Your task to perform on an android device: add a label to a message in the gmail app Image 0: 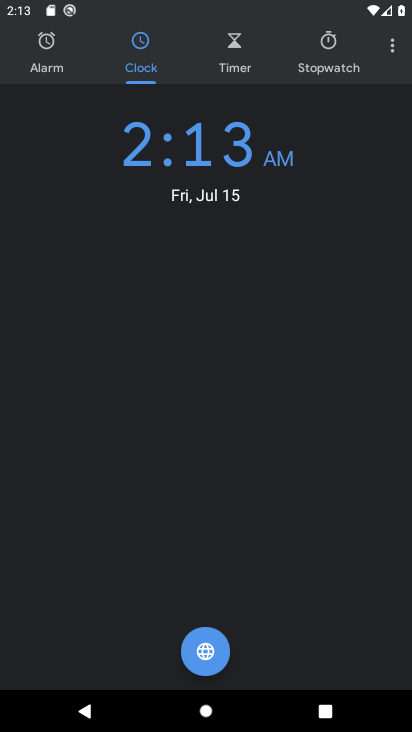
Step 0: press home button
Your task to perform on an android device: add a label to a message in the gmail app Image 1: 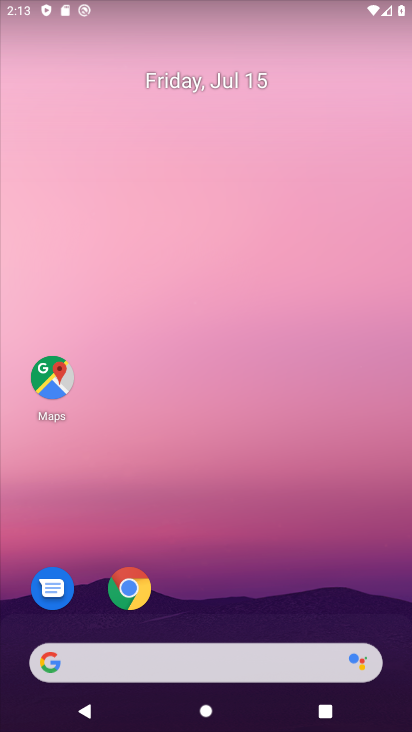
Step 1: drag from (267, 530) to (222, 116)
Your task to perform on an android device: add a label to a message in the gmail app Image 2: 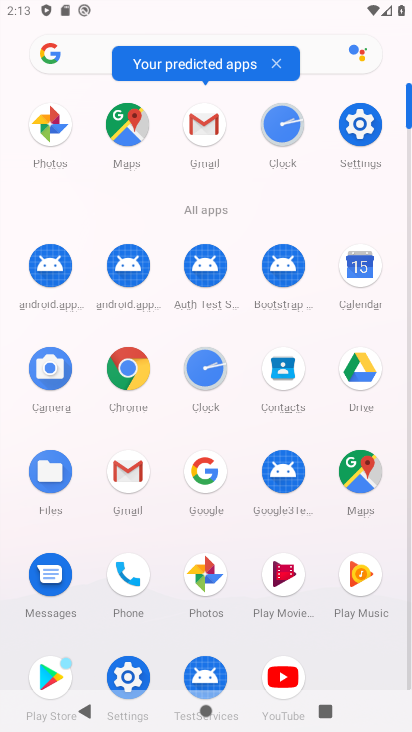
Step 2: click (124, 474)
Your task to perform on an android device: add a label to a message in the gmail app Image 3: 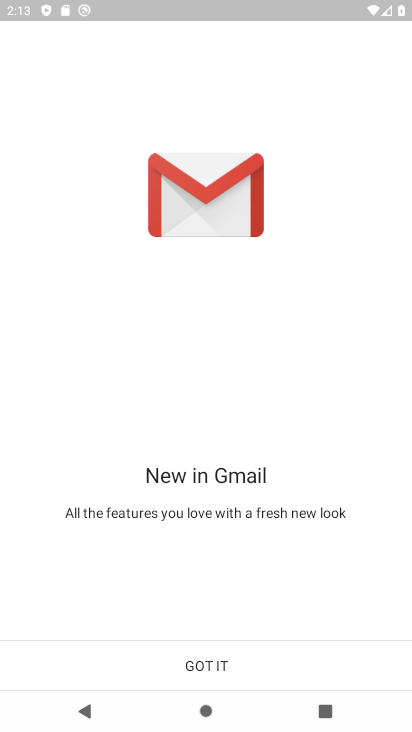
Step 3: click (210, 664)
Your task to perform on an android device: add a label to a message in the gmail app Image 4: 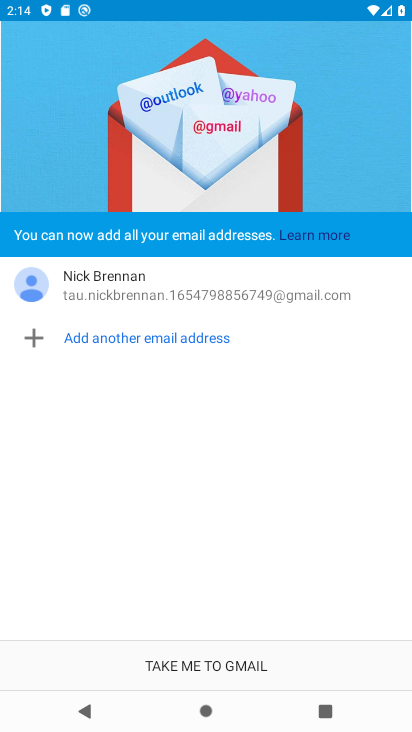
Step 4: click (210, 664)
Your task to perform on an android device: add a label to a message in the gmail app Image 5: 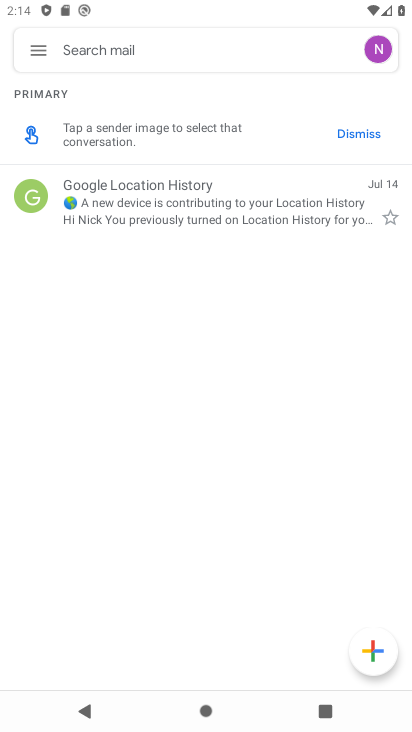
Step 5: click (176, 198)
Your task to perform on an android device: add a label to a message in the gmail app Image 6: 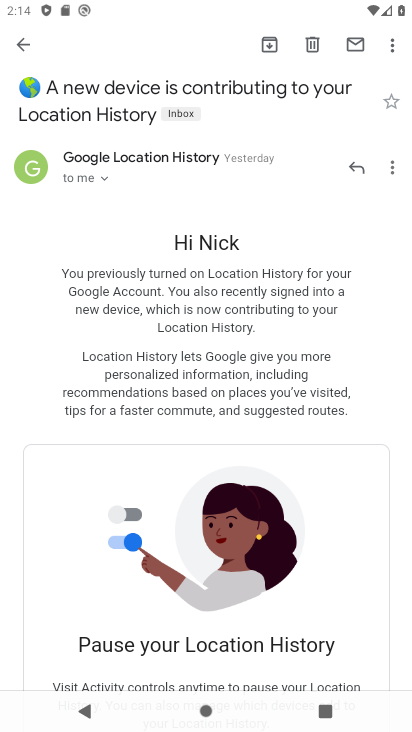
Step 6: click (391, 42)
Your task to perform on an android device: add a label to a message in the gmail app Image 7: 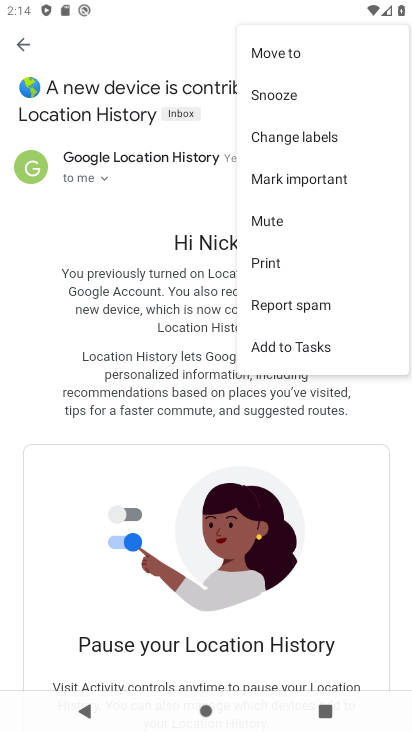
Step 7: click (293, 134)
Your task to perform on an android device: add a label to a message in the gmail app Image 8: 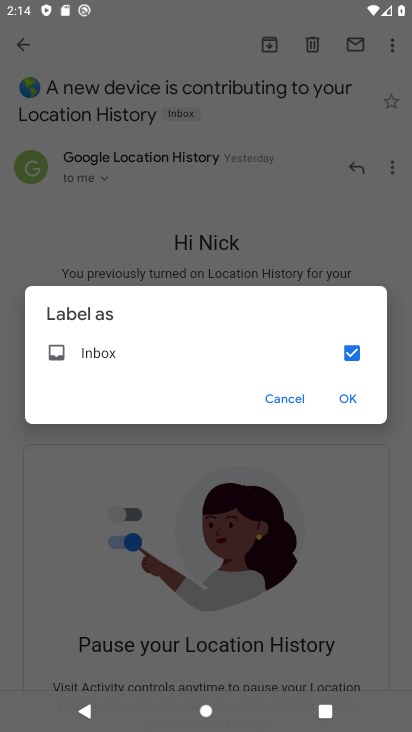
Step 8: click (344, 397)
Your task to perform on an android device: add a label to a message in the gmail app Image 9: 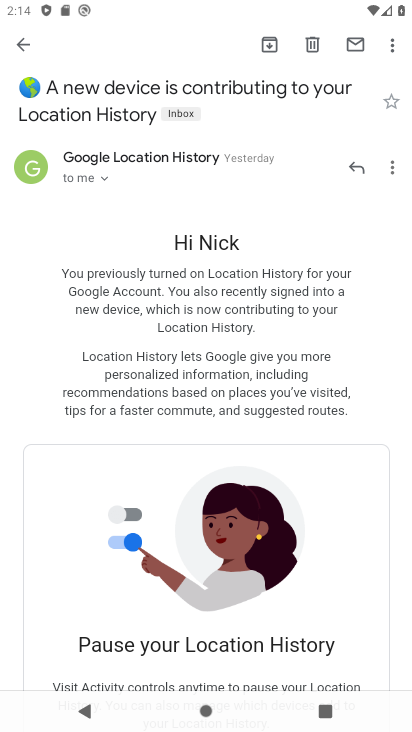
Step 9: task complete